Your task to perform on an android device: find photos in the google photos app Image 0: 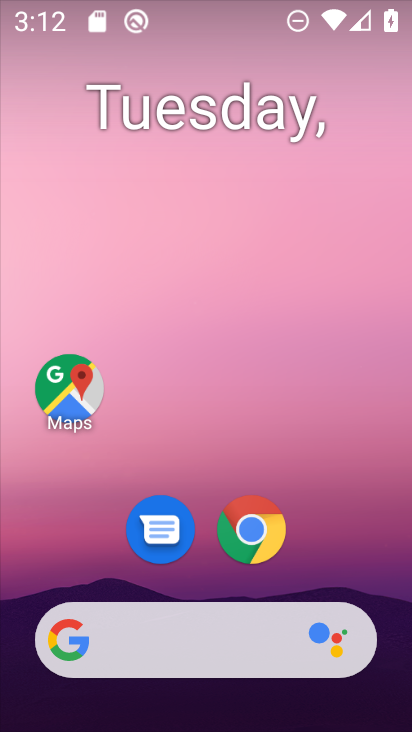
Step 0: drag from (330, 544) to (325, 207)
Your task to perform on an android device: find photos in the google photos app Image 1: 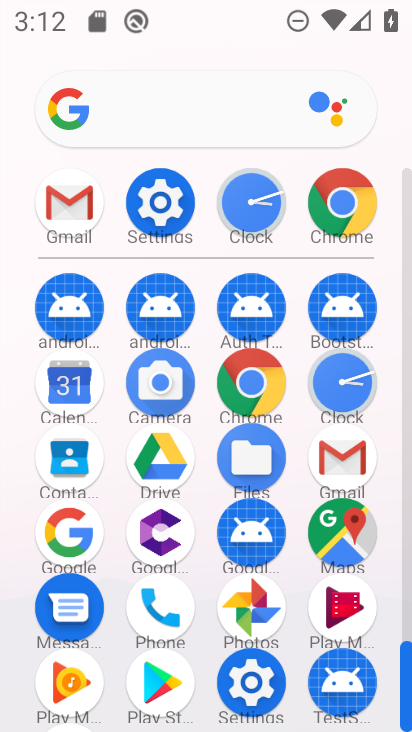
Step 1: click (243, 603)
Your task to perform on an android device: find photos in the google photos app Image 2: 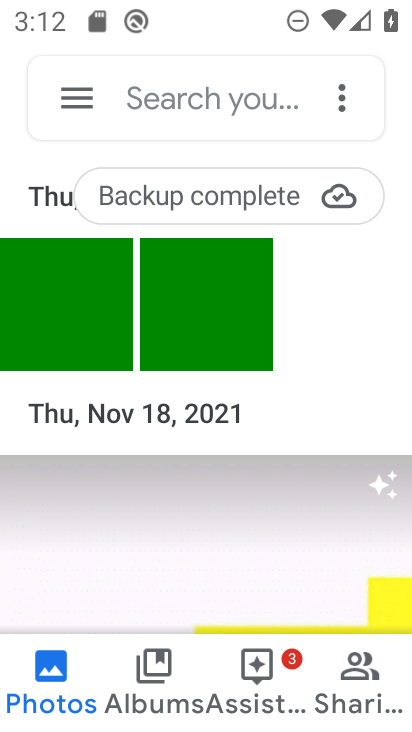
Step 2: task complete